Your task to perform on an android device: change the clock display to analog Image 0: 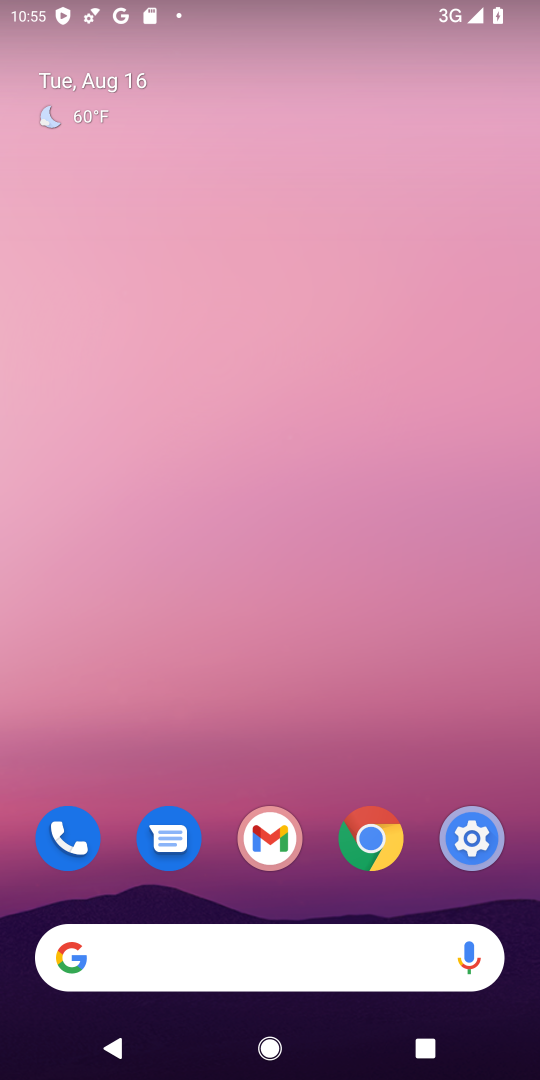
Step 0: press home button
Your task to perform on an android device: change the clock display to analog Image 1: 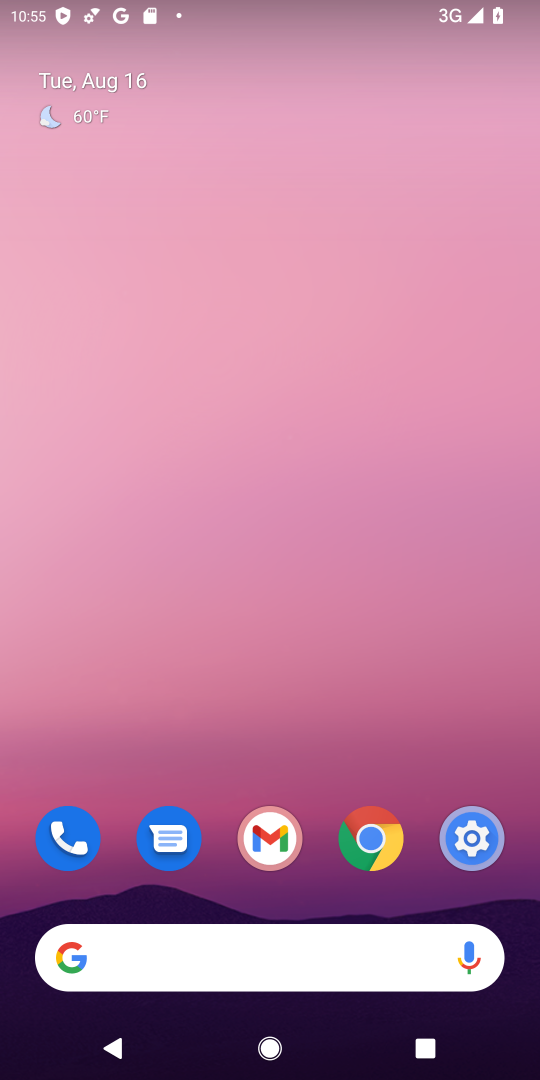
Step 1: drag from (318, 891) to (326, 129)
Your task to perform on an android device: change the clock display to analog Image 2: 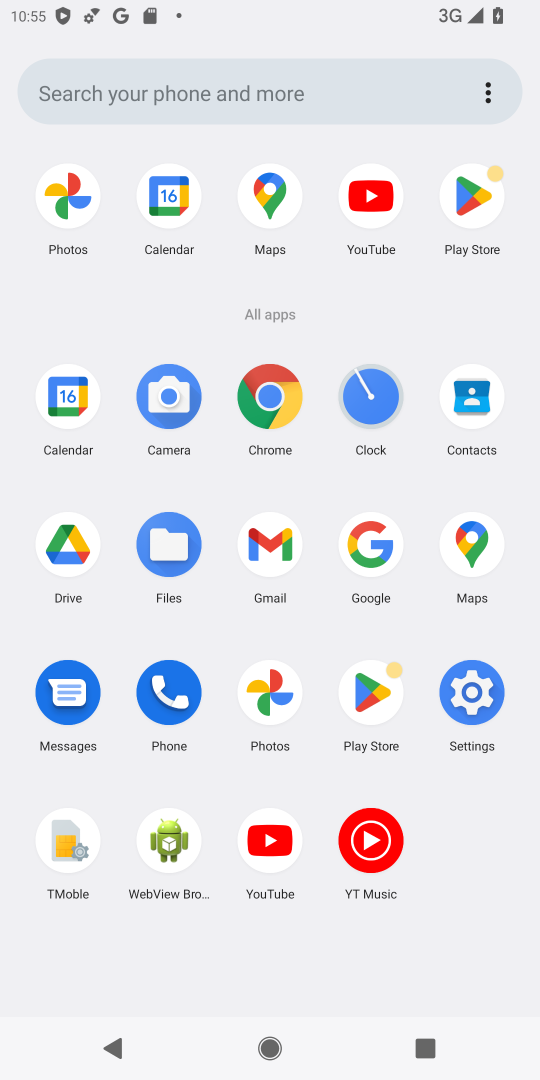
Step 2: click (371, 408)
Your task to perform on an android device: change the clock display to analog Image 3: 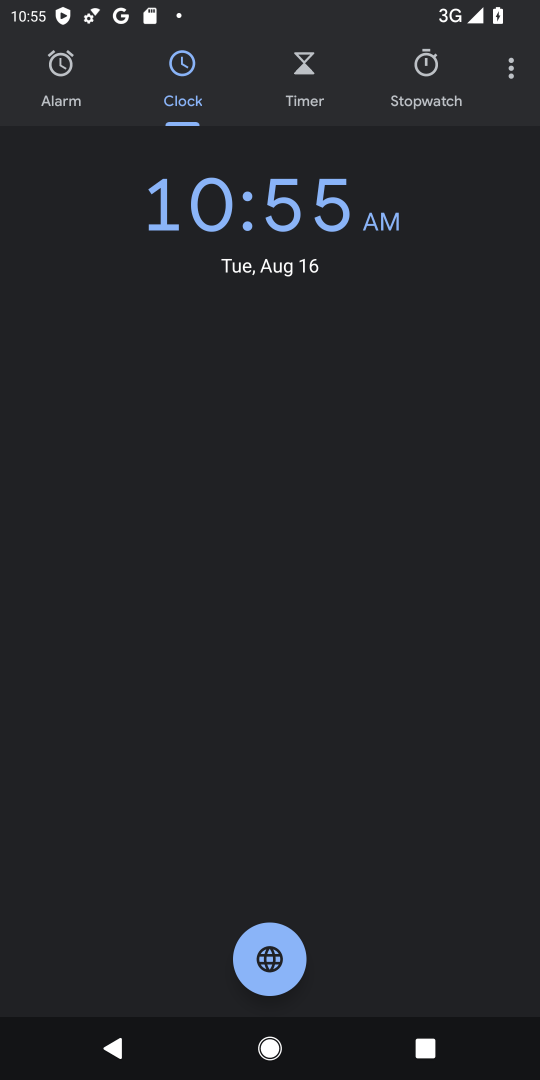
Step 3: click (510, 67)
Your task to perform on an android device: change the clock display to analog Image 4: 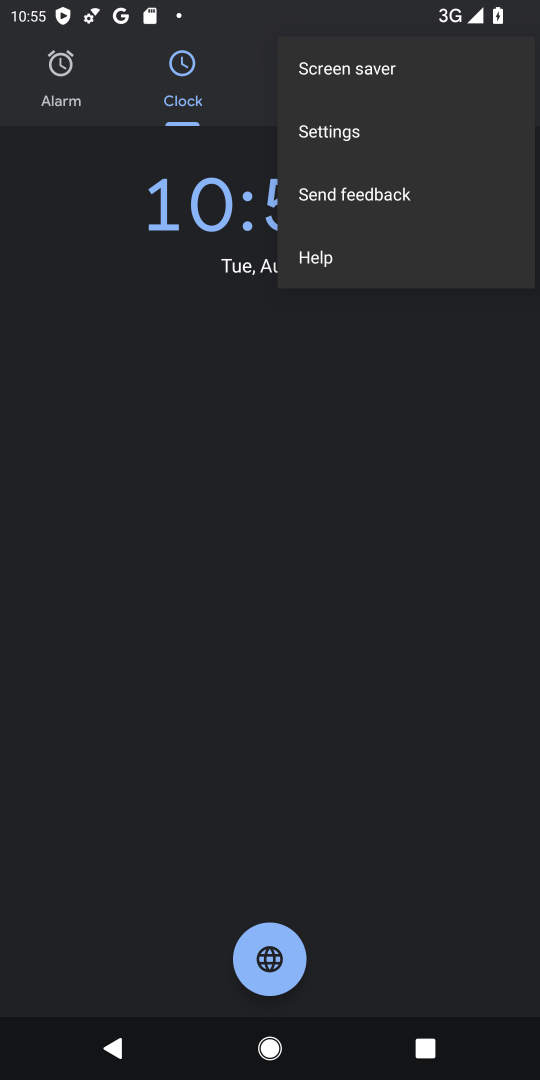
Step 4: click (332, 136)
Your task to perform on an android device: change the clock display to analog Image 5: 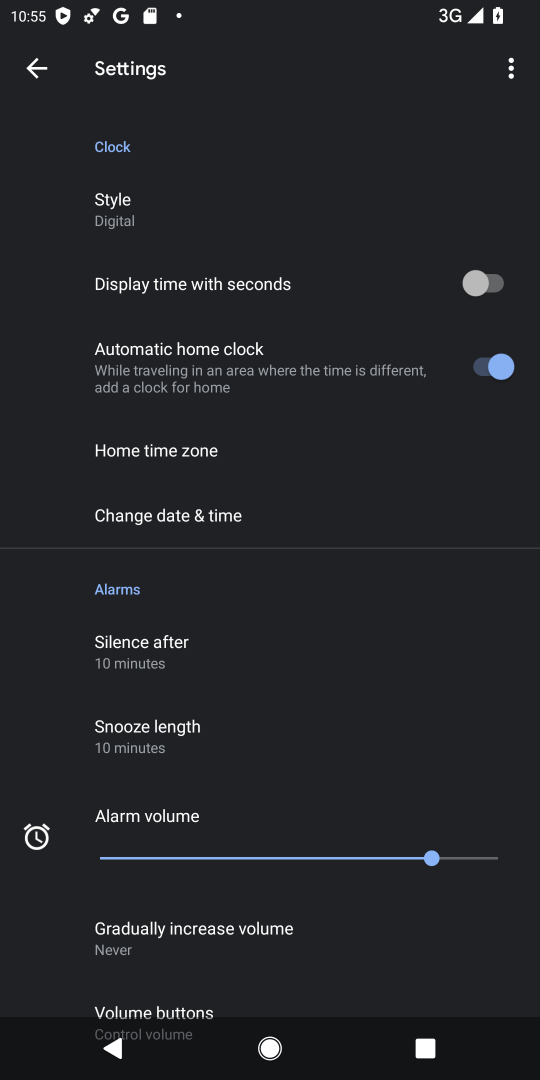
Step 5: click (110, 216)
Your task to perform on an android device: change the clock display to analog Image 6: 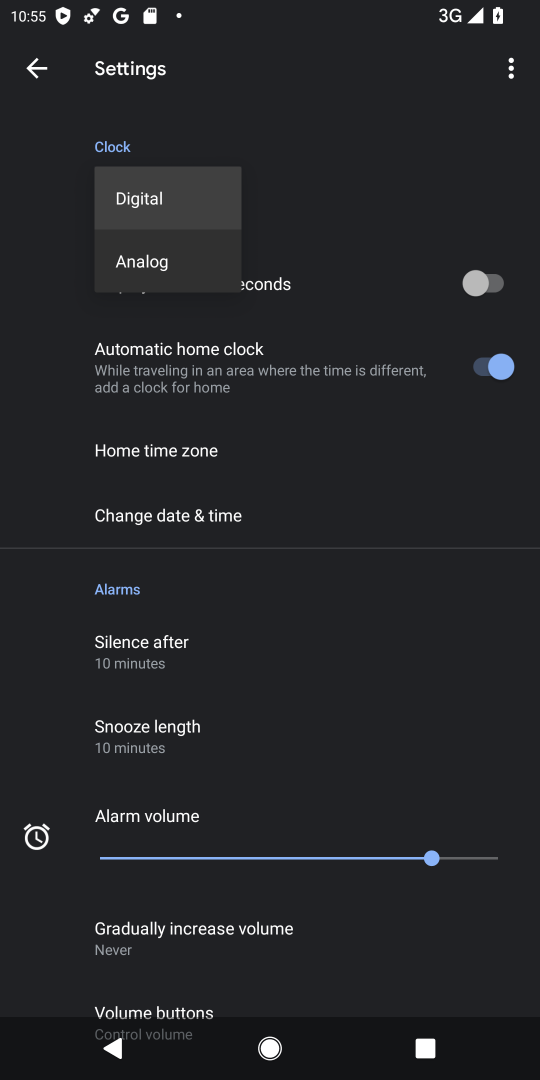
Step 6: click (125, 274)
Your task to perform on an android device: change the clock display to analog Image 7: 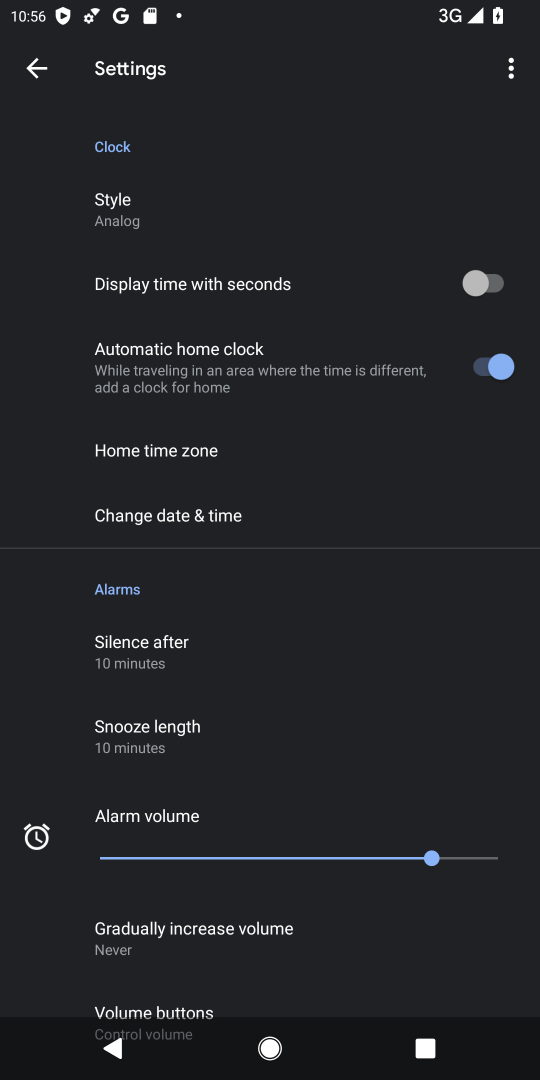
Step 7: task complete